Your task to perform on an android device: Search for logitech g pro on ebay.com, select the first entry, add it to the cart, then select checkout. Image 0: 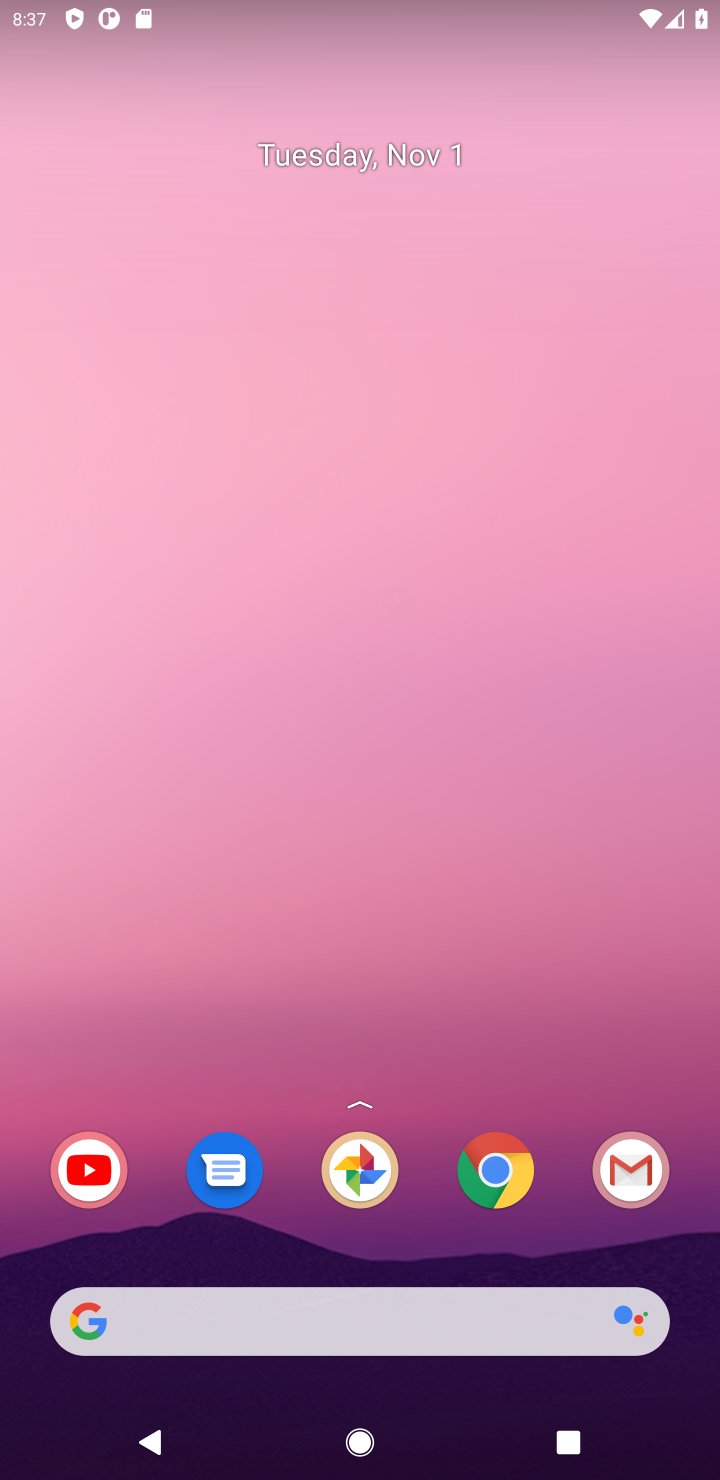
Step 0: click (482, 1179)
Your task to perform on an android device: Search for logitech g pro on ebay.com, select the first entry, add it to the cart, then select checkout. Image 1: 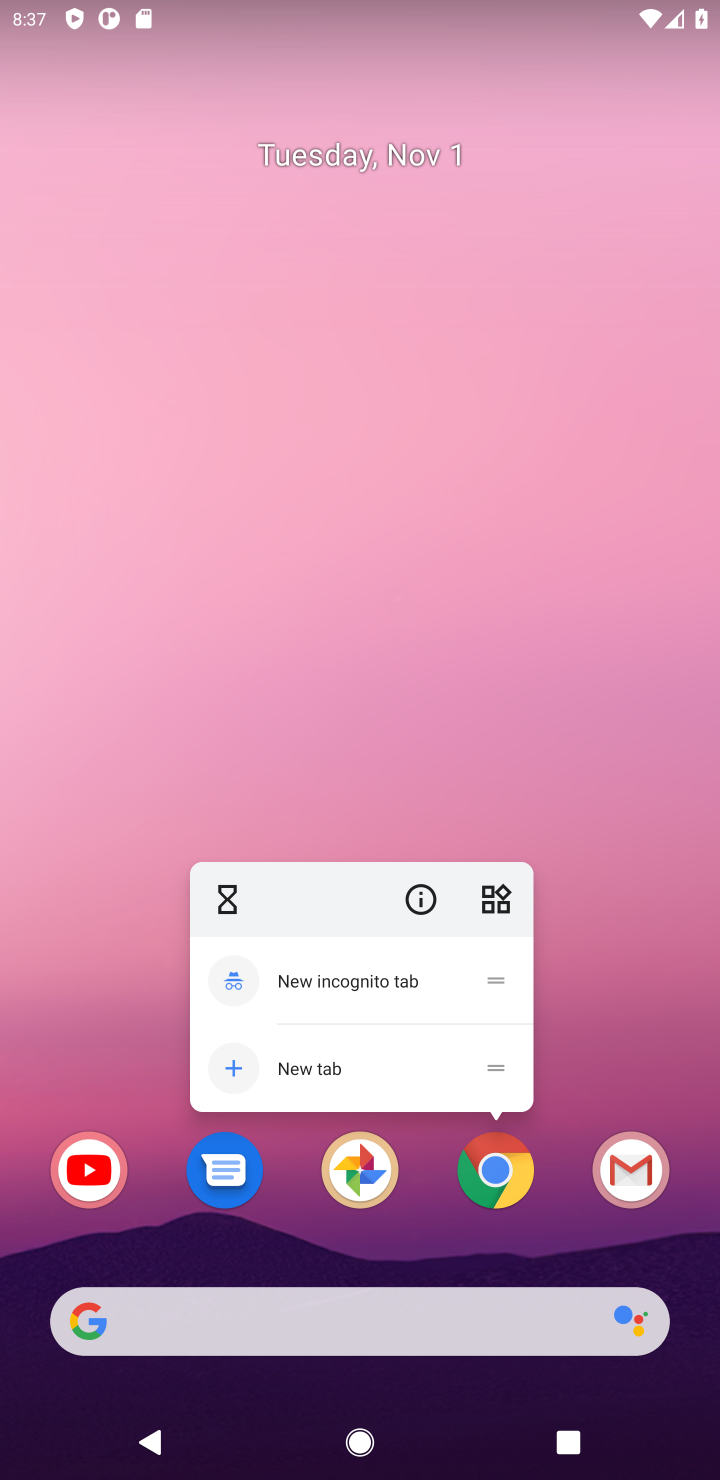
Step 1: click (509, 1171)
Your task to perform on an android device: Search for logitech g pro on ebay.com, select the first entry, add it to the cart, then select checkout. Image 2: 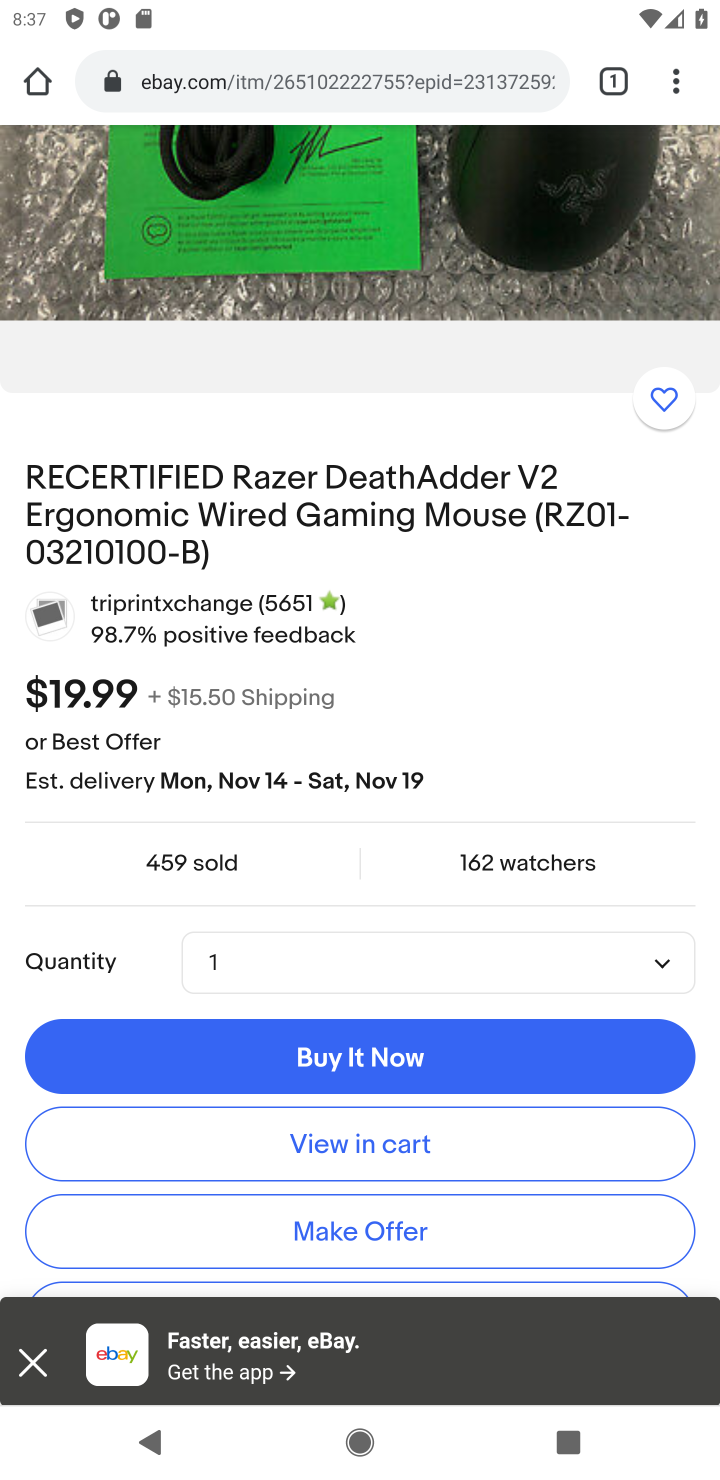
Step 2: click (279, 84)
Your task to perform on an android device: Search for logitech g pro on ebay.com, select the first entry, add it to the cart, then select checkout. Image 3: 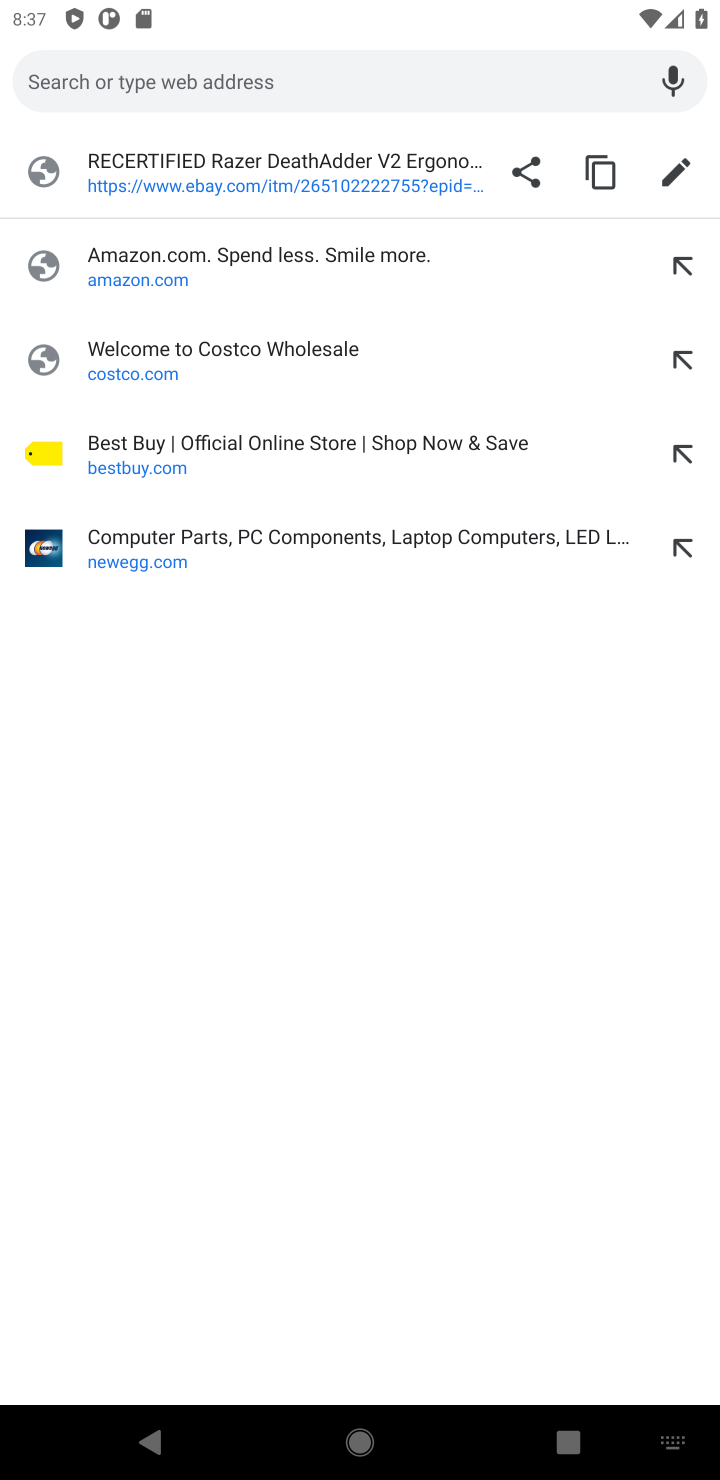
Step 3: type "ebay.com"
Your task to perform on an android device: Search for logitech g pro on ebay.com, select the first entry, add it to the cart, then select checkout. Image 4: 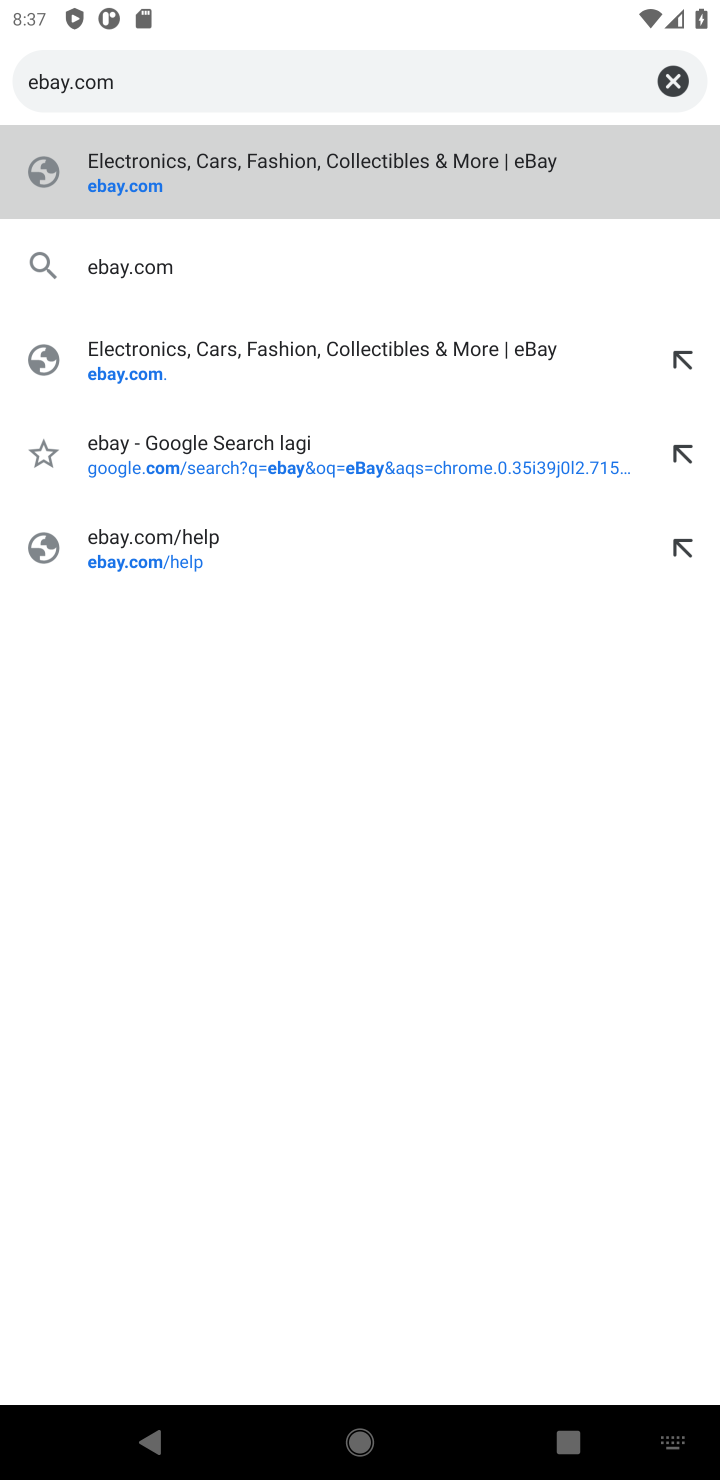
Step 4: type ""
Your task to perform on an android device: Search for logitech g pro on ebay.com, select the first entry, add it to the cart, then select checkout. Image 5: 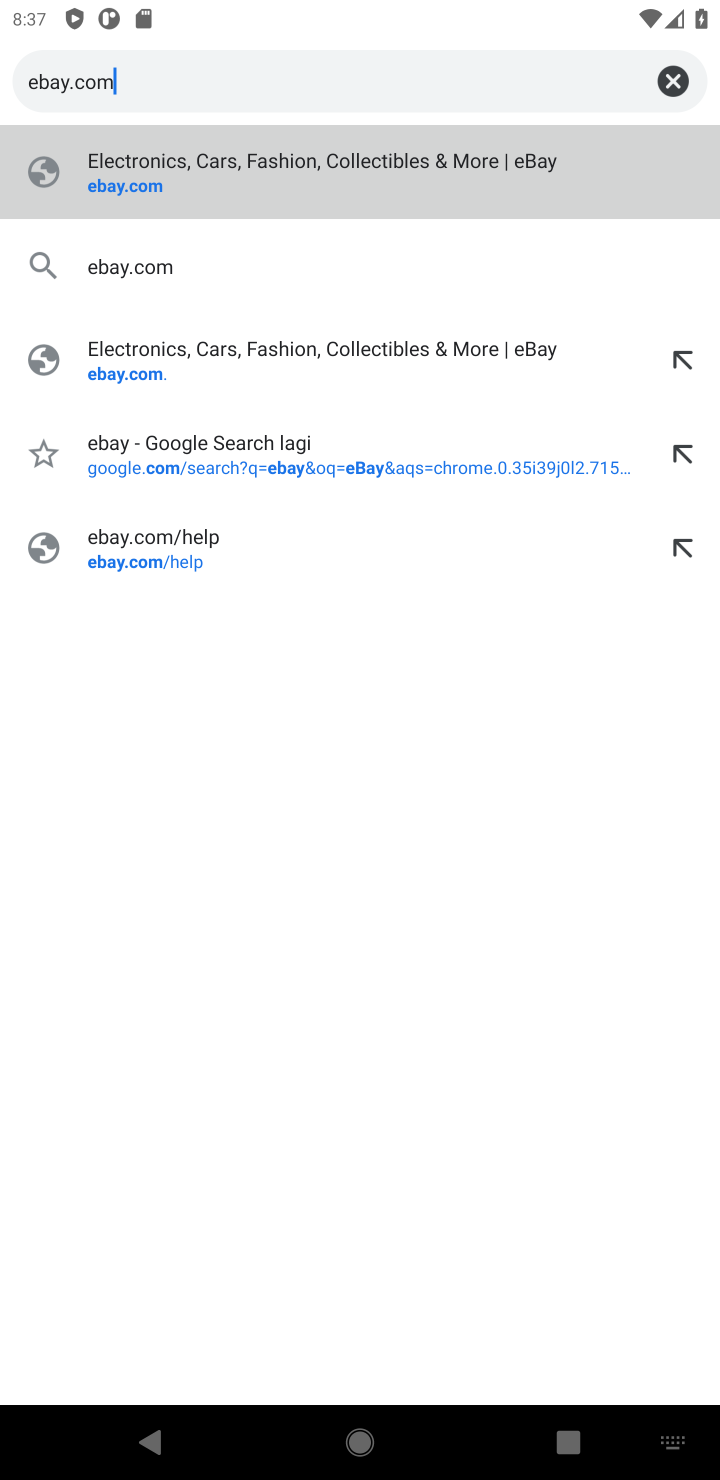
Step 5: press enter
Your task to perform on an android device: Search for logitech g pro on ebay.com, select the first entry, add it to the cart, then select checkout. Image 6: 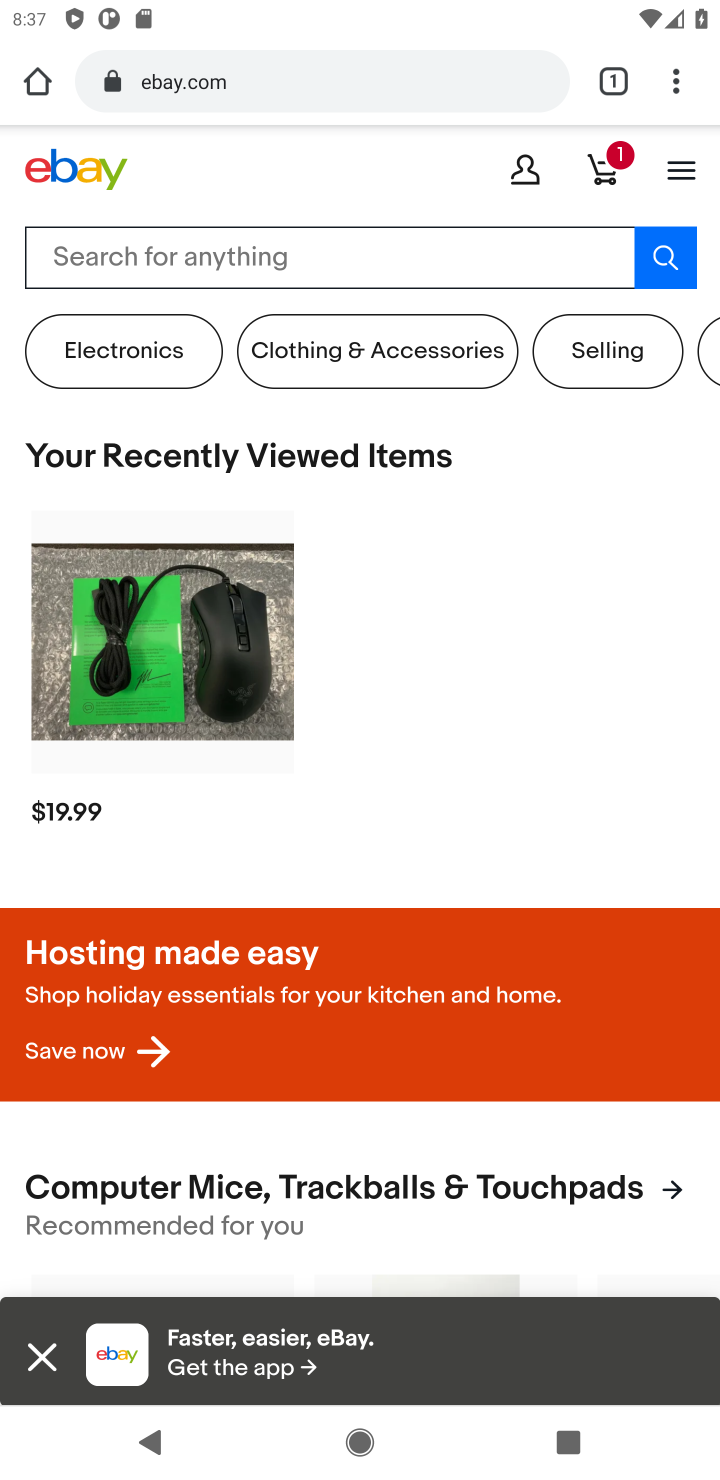
Step 6: click (311, 259)
Your task to perform on an android device: Search for logitech g pro on ebay.com, select the first entry, add it to the cart, then select checkout. Image 7: 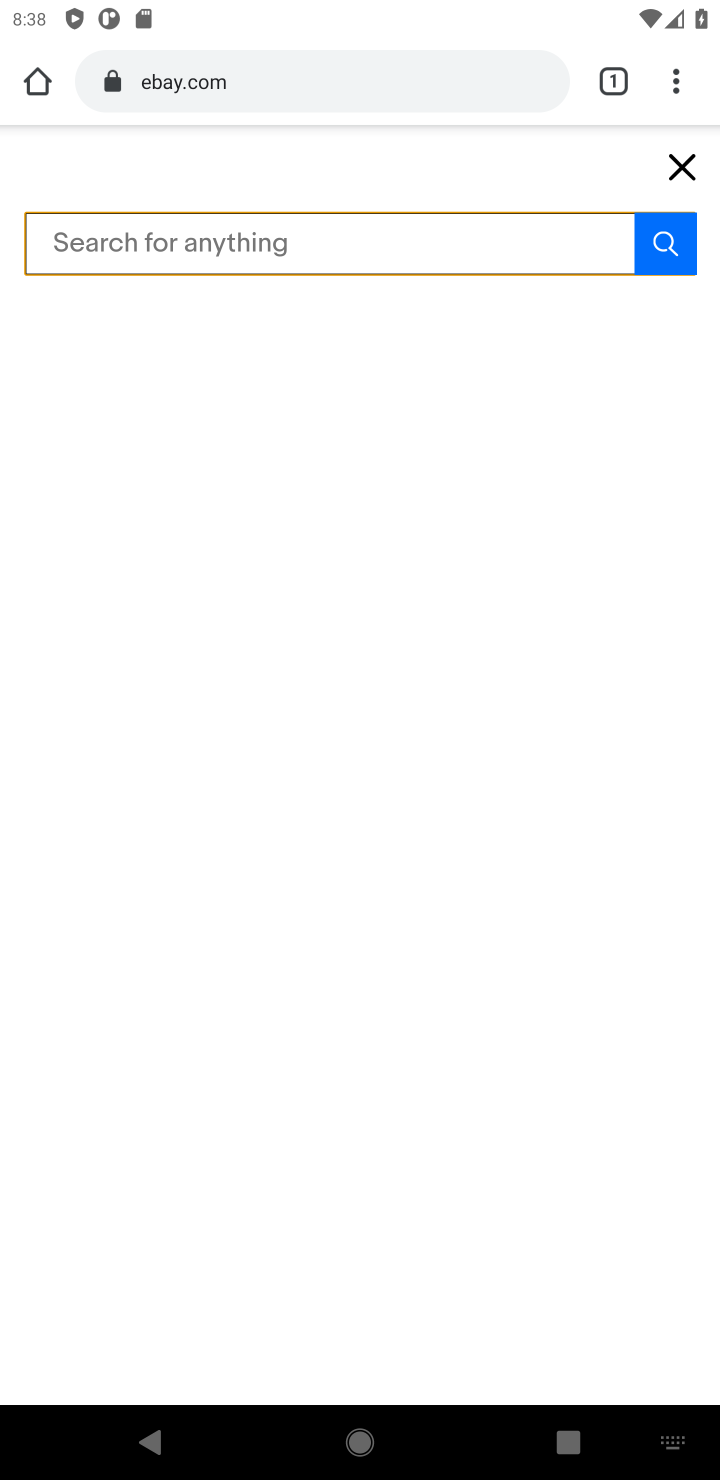
Step 7: type "logitech g pro "
Your task to perform on an android device: Search for logitech g pro on ebay.com, select the first entry, add it to the cart, then select checkout. Image 8: 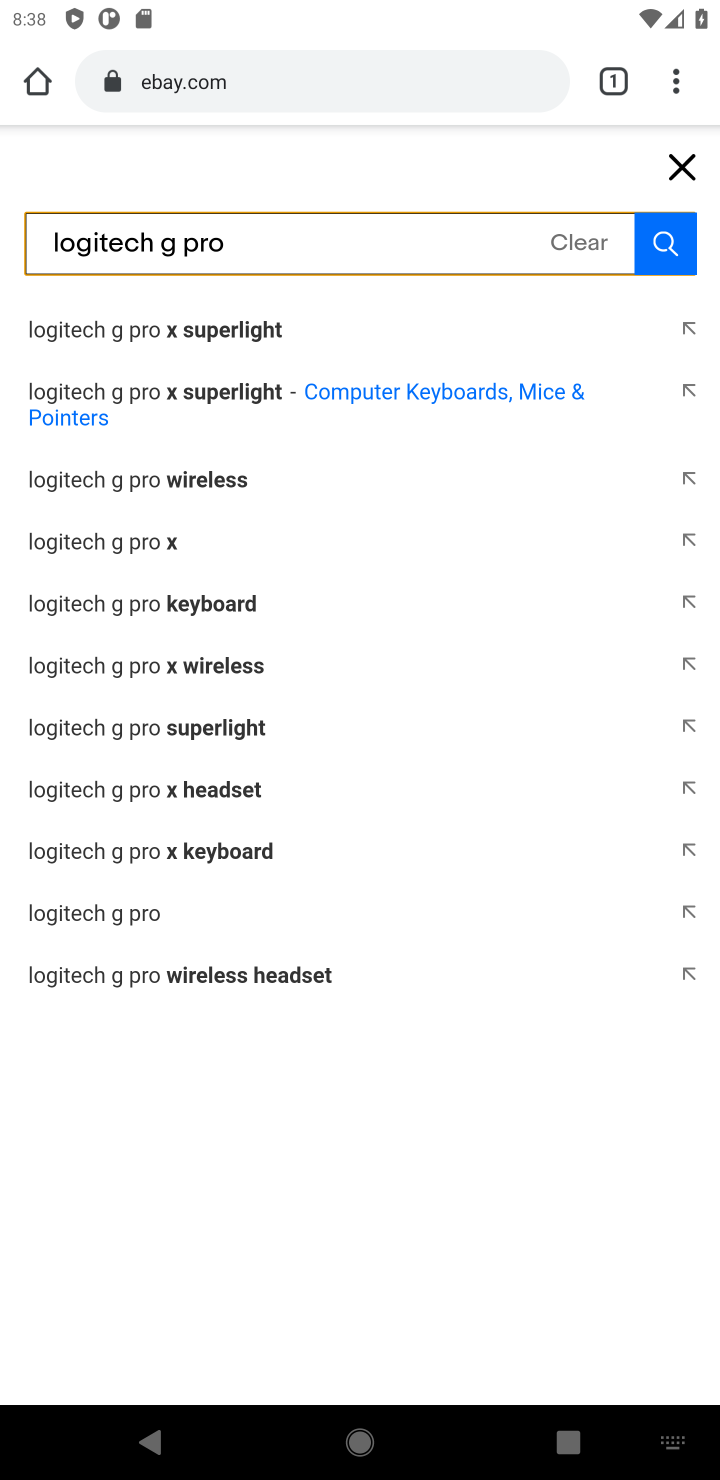
Step 8: click (648, 245)
Your task to perform on an android device: Search for logitech g pro on ebay.com, select the first entry, add it to the cart, then select checkout. Image 9: 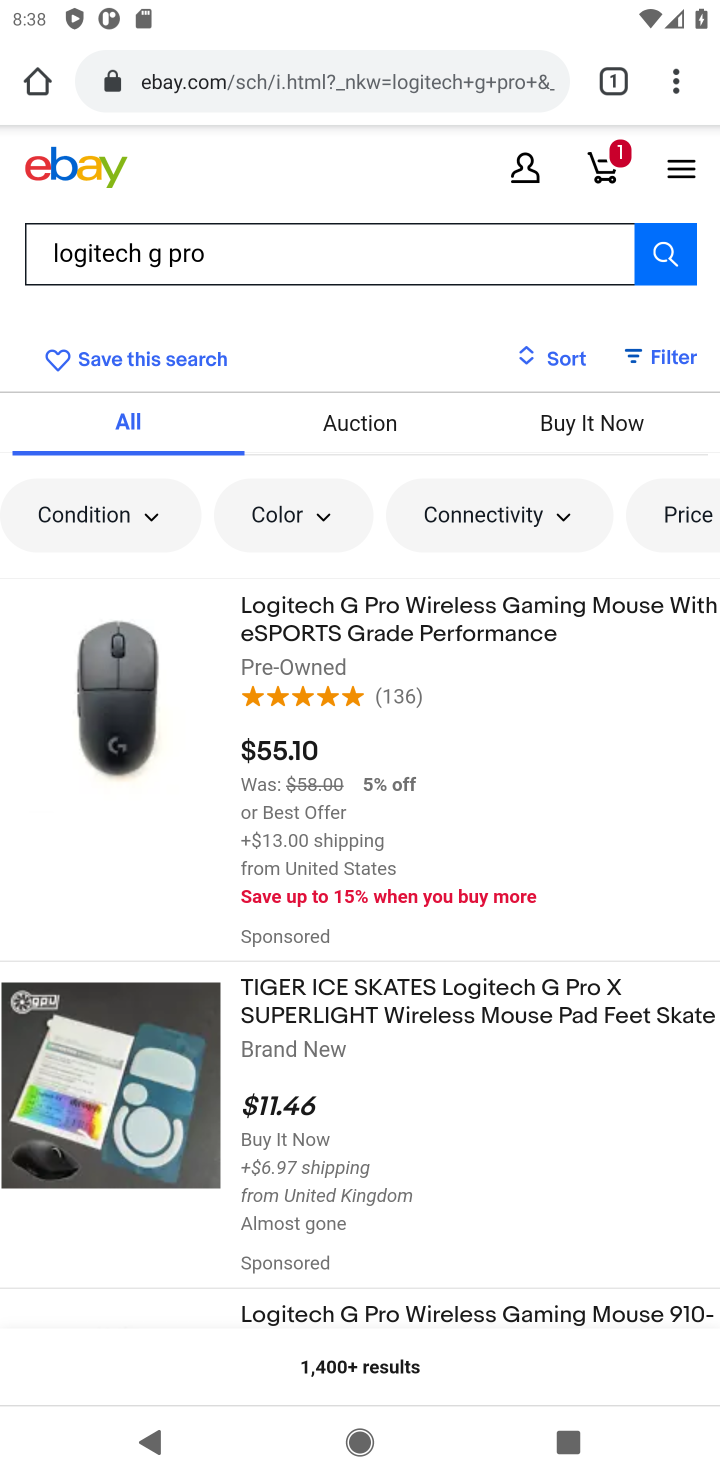
Step 9: click (392, 644)
Your task to perform on an android device: Search for logitech g pro on ebay.com, select the first entry, add it to the cart, then select checkout. Image 10: 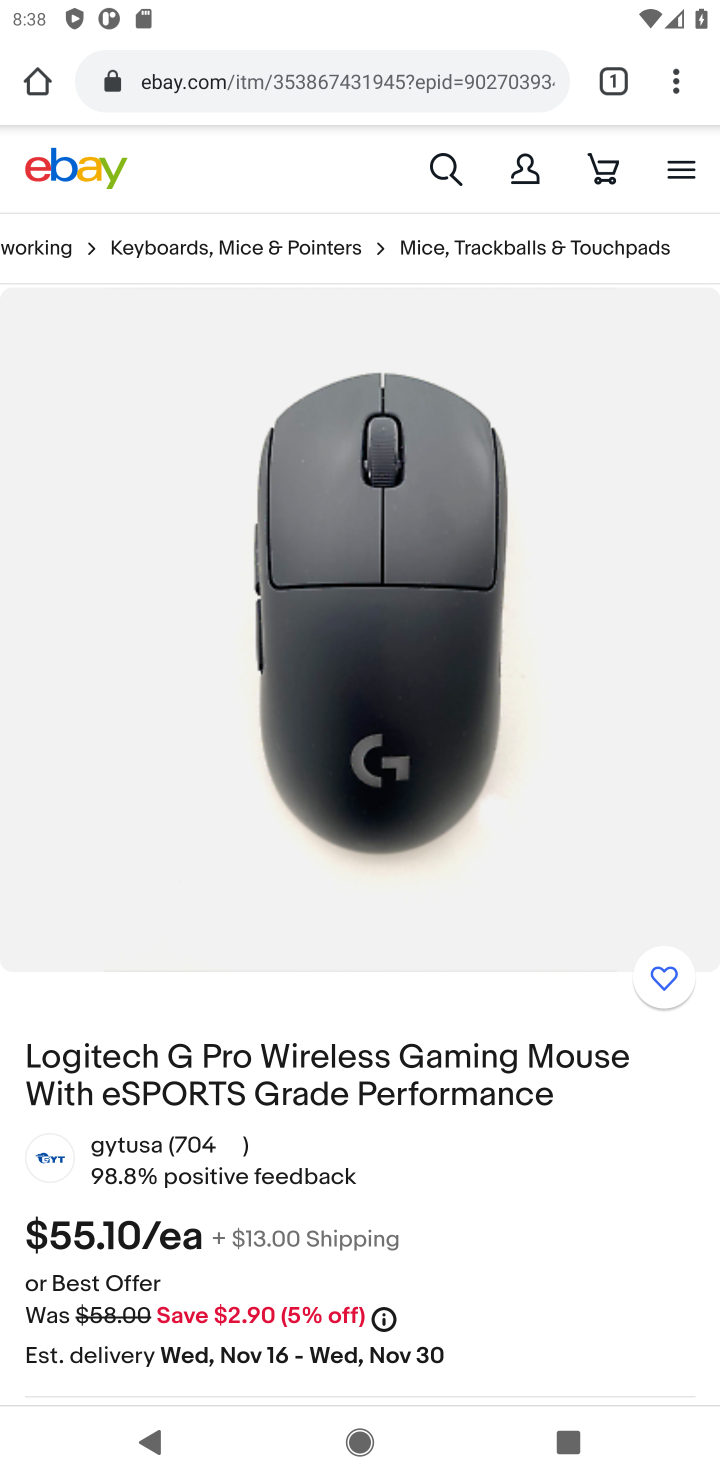
Step 10: drag from (435, 1110) to (412, 156)
Your task to perform on an android device: Search for logitech g pro on ebay.com, select the first entry, add it to the cart, then select checkout. Image 11: 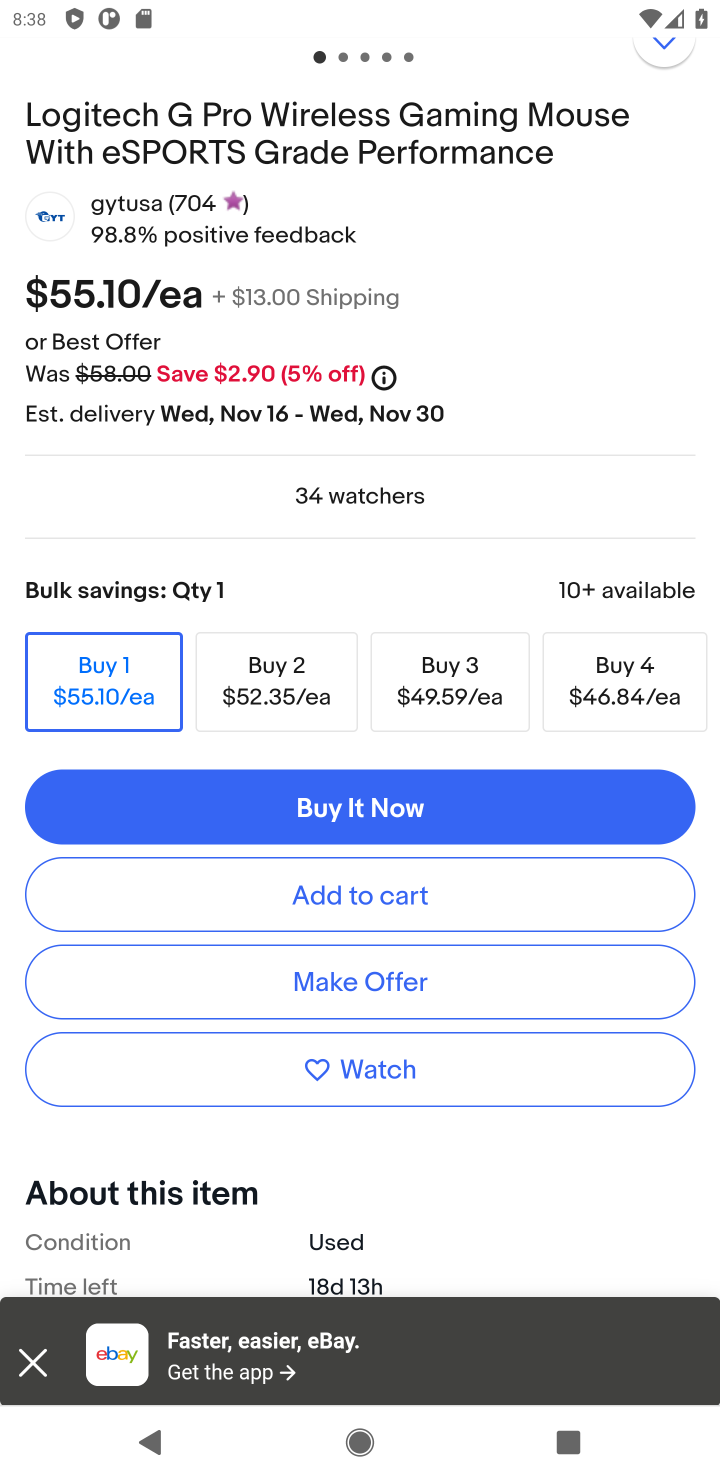
Step 11: click (442, 896)
Your task to perform on an android device: Search for logitech g pro on ebay.com, select the first entry, add it to the cart, then select checkout. Image 12: 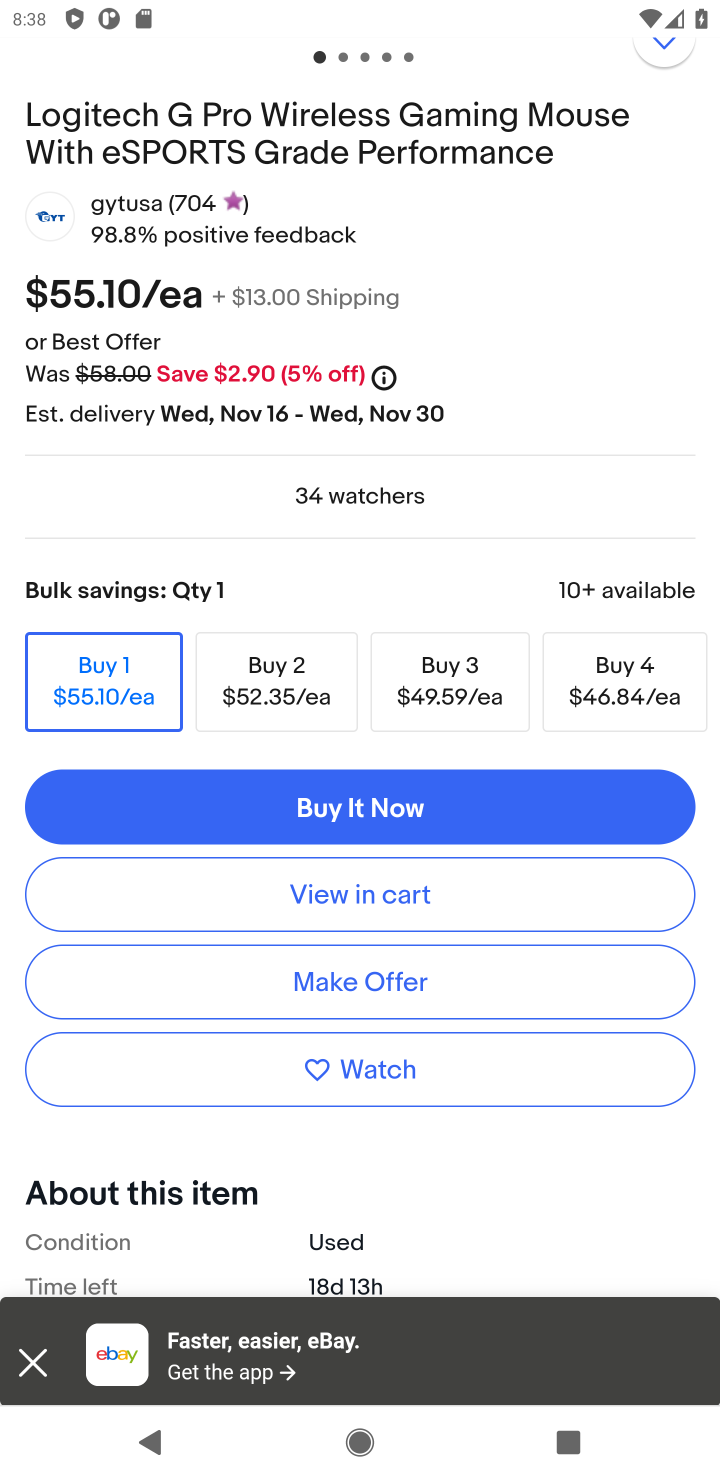
Step 12: click (467, 898)
Your task to perform on an android device: Search for logitech g pro on ebay.com, select the first entry, add it to the cart, then select checkout. Image 13: 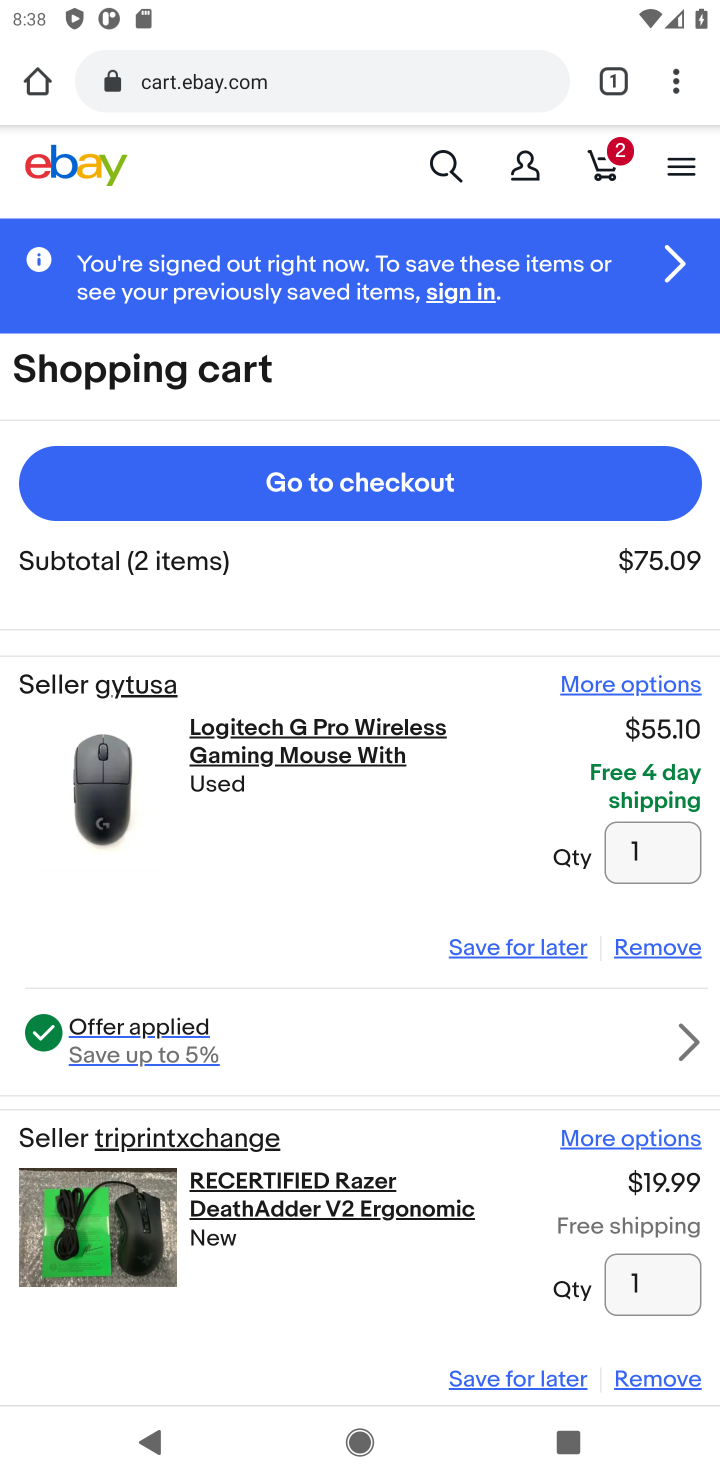
Step 13: click (509, 502)
Your task to perform on an android device: Search for logitech g pro on ebay.com, select the first entry, add it to the cart, then select checkout. Image 14: 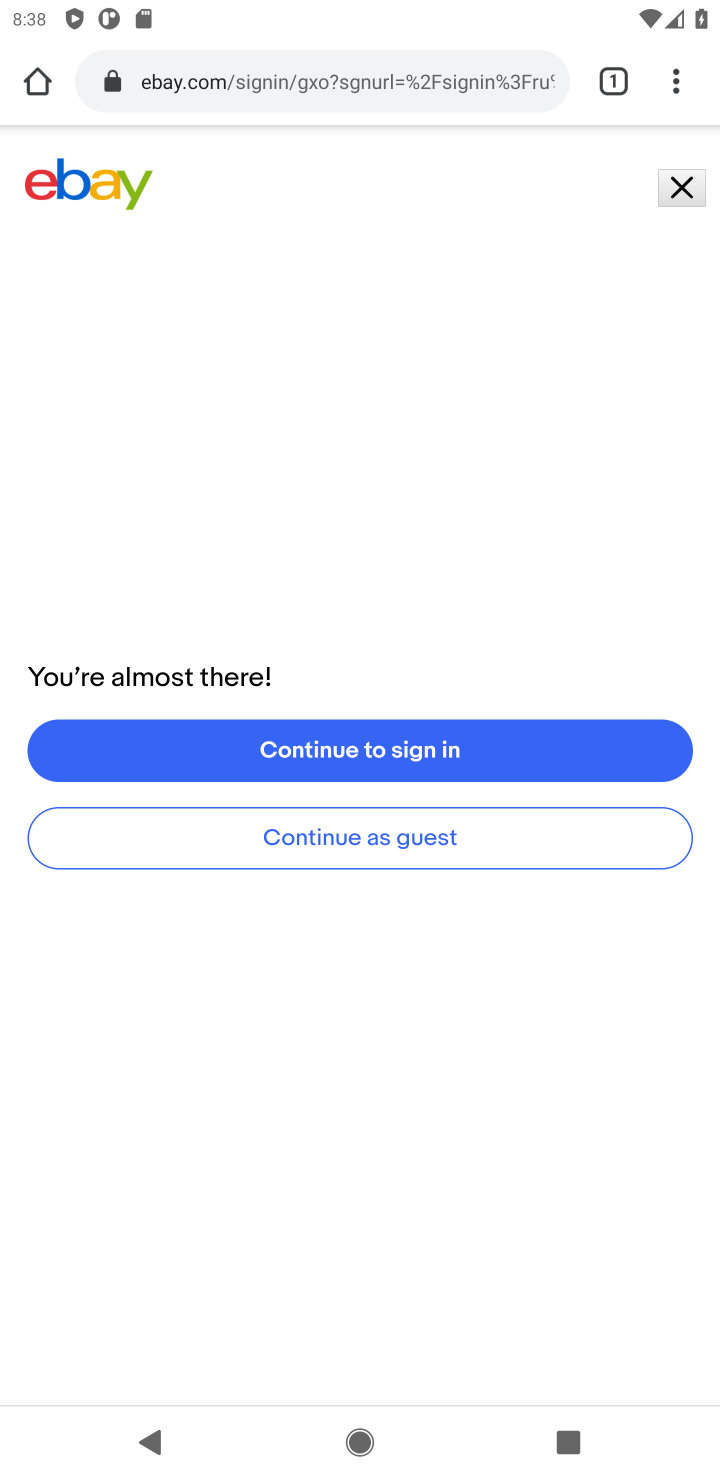
Step 14: click (603, 860)
Your task to perform on an android device: Search for logitech g pro on ebay.com, select the first entry, add it to the cart, then select checkout. Image 15: 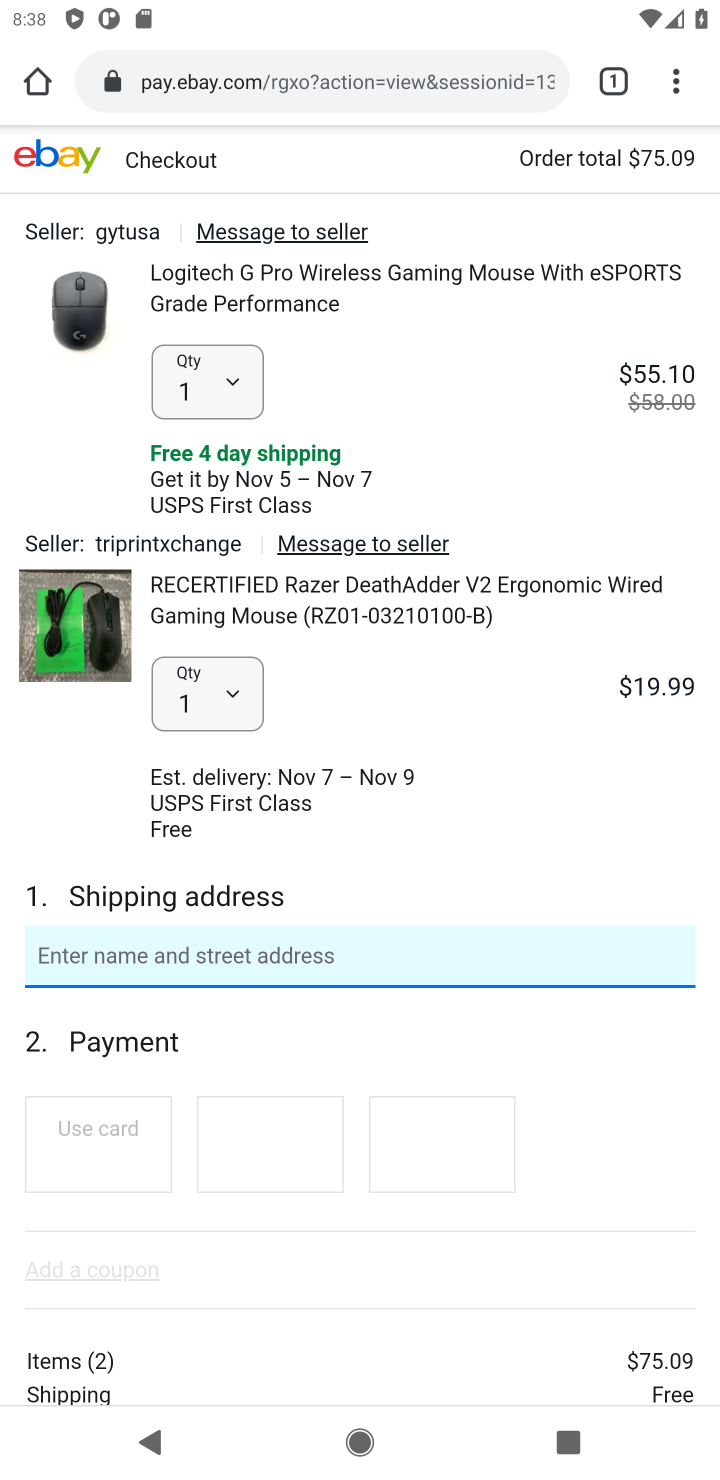
Step 15: task complete